Your task to perform on an android device: Check the weather Image 0: 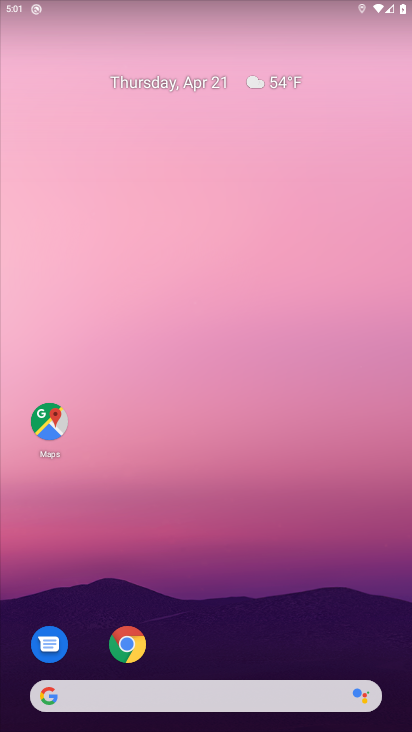
Step 0: drag from (262, 655) to (304, 276)
Your task to perform on an android device: Check the weather Image 1: 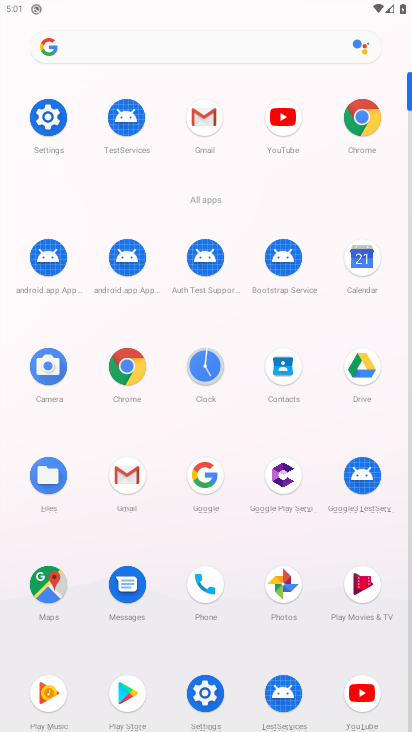
Step 1: click (203, 467)
Your task to perform on an android device: Check the weather Image 2: 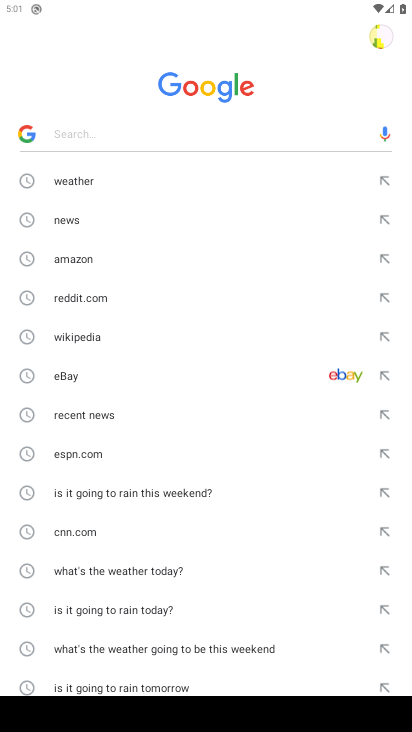
Step 2: click (88, 183)
Your task to perform on an android device: Check the weather Image 3: 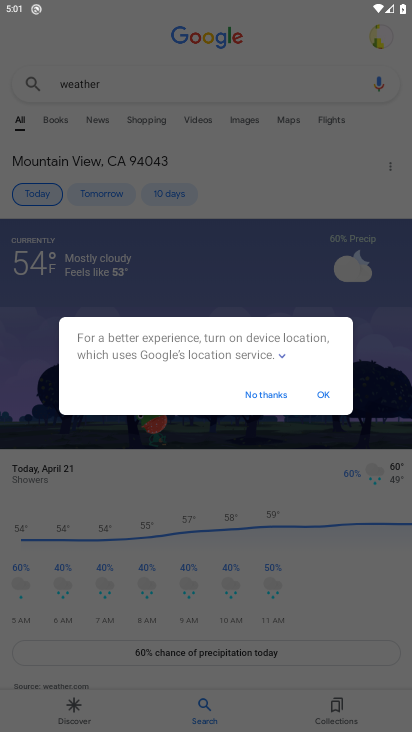
Step 3: click (321, 394)
Your task to perform on an android device: Check the weather Image 4: 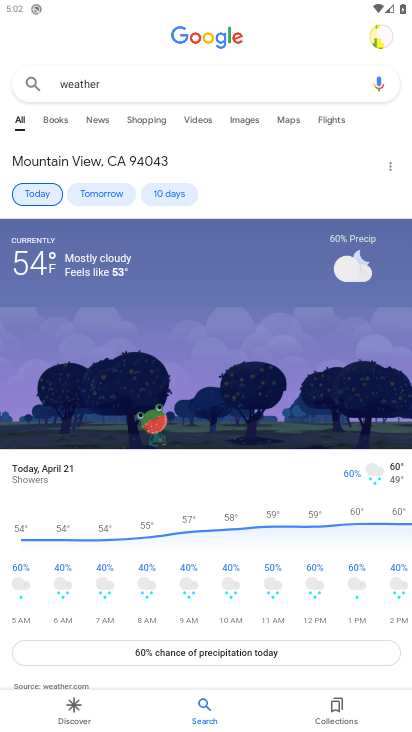
Step 4: task complete